Your task to perform on an android device: Check the weather Image 0: 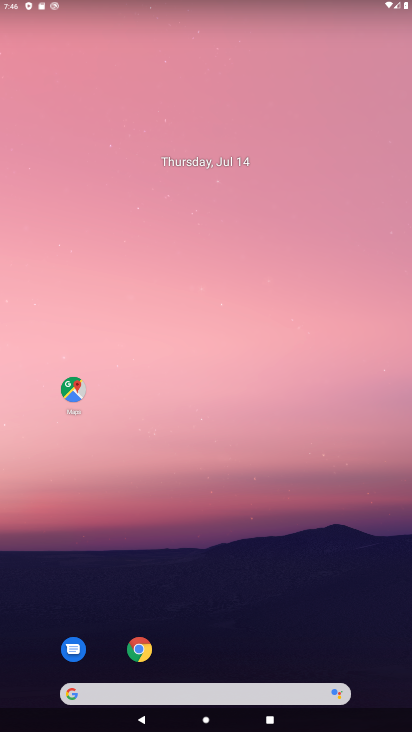
Step 0: drag from (354, 531) to (292, 40)
Your task to perform on an android device: Check the weather Image 1: 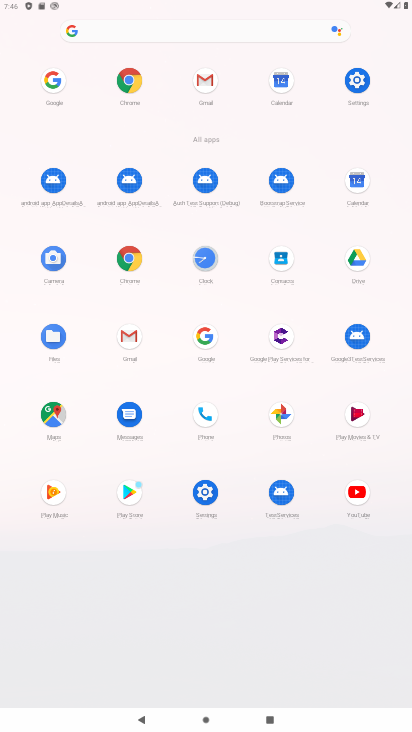
Step 1: click (200, 345)
Your task to perform on an android device: Check the weather Image 2: 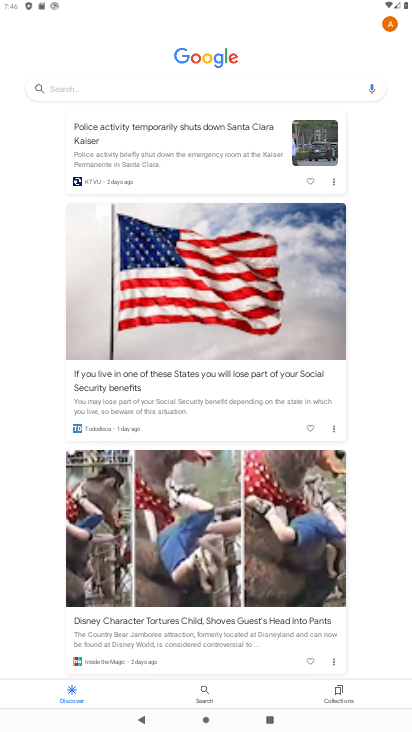
Step 2: click (71, 92)
Your task to perform on an android device: Check the weather Image 3: 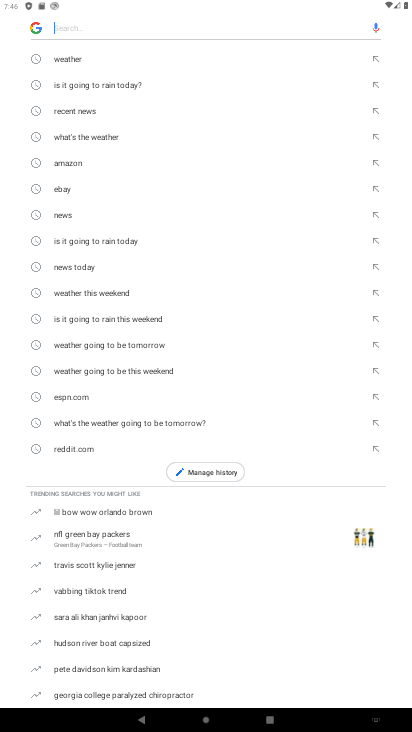
Step 3: click (70, 66)
Your task to perform on an android device: Check the weather Image 4: 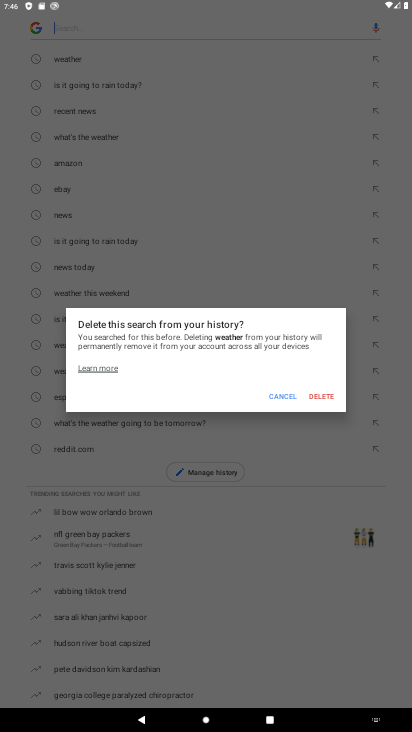
Step 4: click (268, 412)
Your task to perform on an android device: Check the weather Image 5: 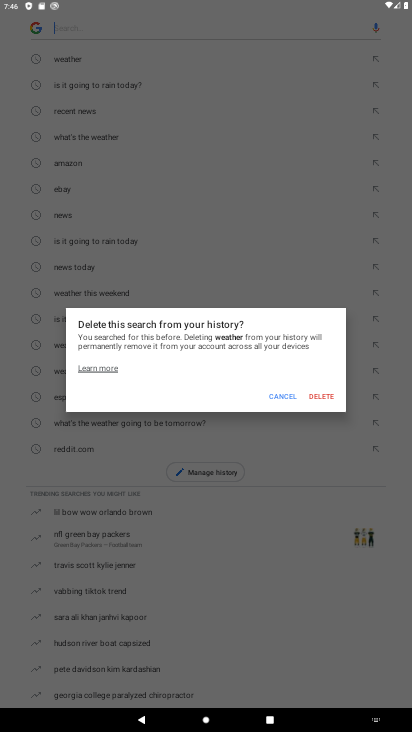
Step 5: click (281, 393)
Your task to perform on an android device: Check the weather Image 6: 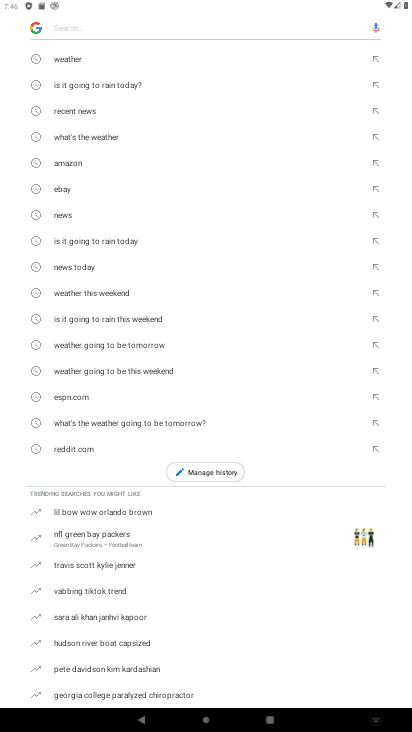
Step 6: click (72, 69)
Your task to perform on an android device: Check the weather Image 7: 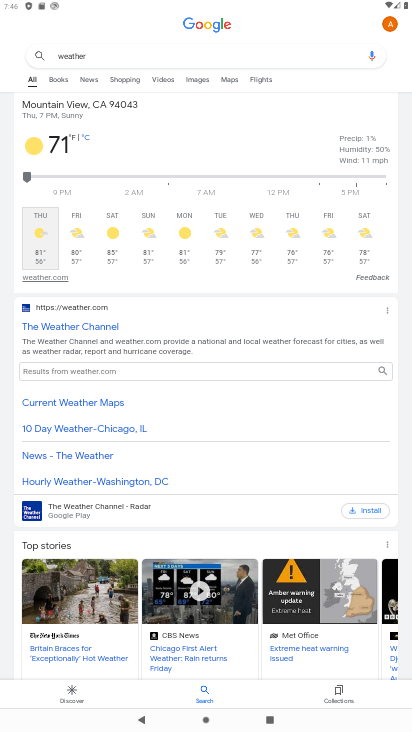
Step 7: task complete